Your task to perform on an android device: open app "Booking.com: Hotels and more" Image 0: 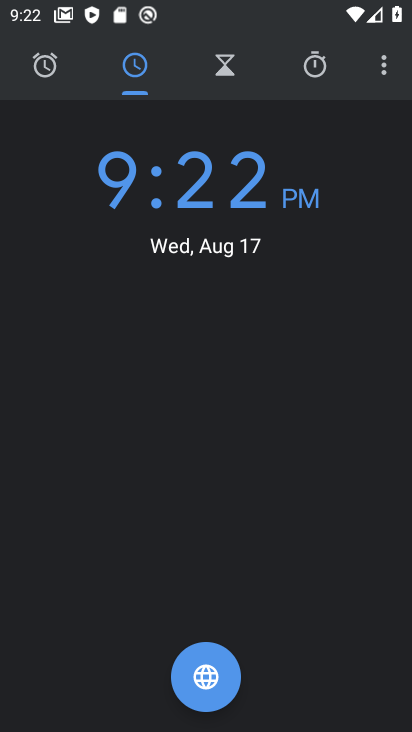
Step 0: drag from (207, 597) to (208, 134)
Your task to perform on an android device: open app "Booking.com: Hotels and more" Image 1: 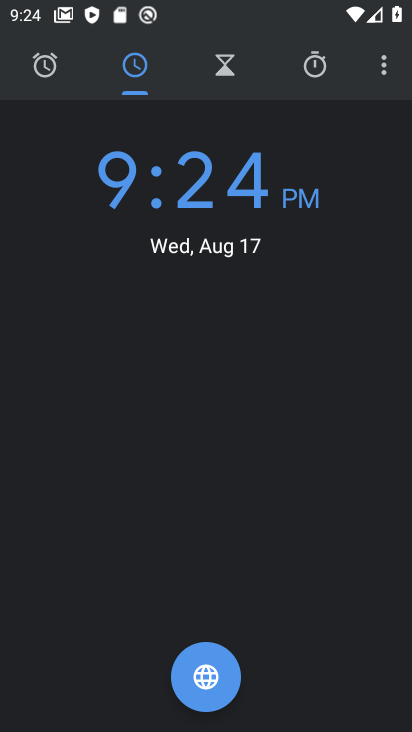
Step 1: press home button
Your task to perform on an android device: open app "Booking.com: Hotels and more" Image 2: 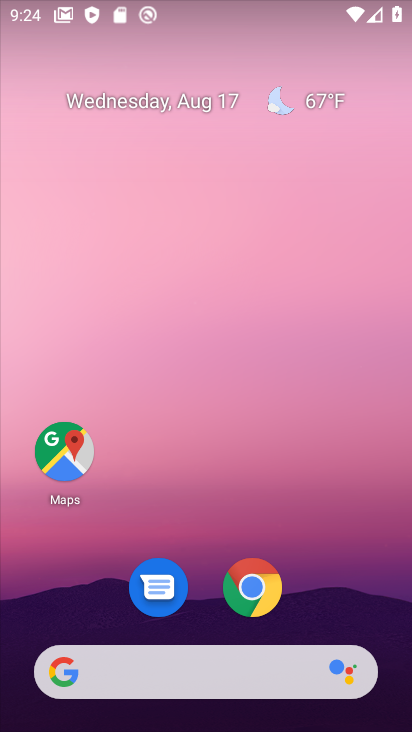
Step 2: drag from (205, 613) to (244, 2)
Your task to perform on an android device: open app "Booking.com: Hotels and more" Image 3: 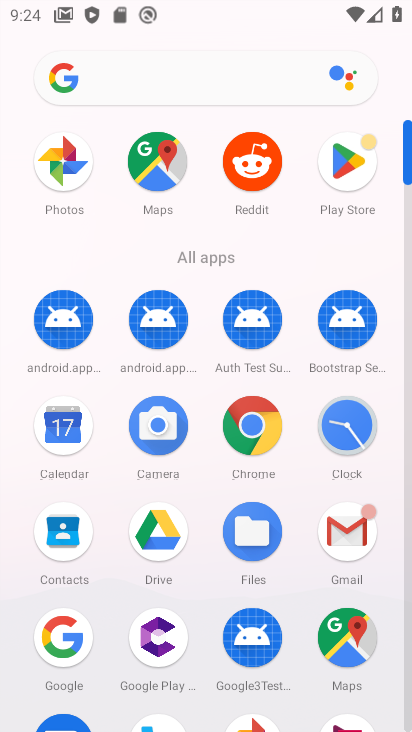
Step 3: click (213, 603)
Your task to perform on an android device: open app "Booking.com: Hotels and more" Image 4: 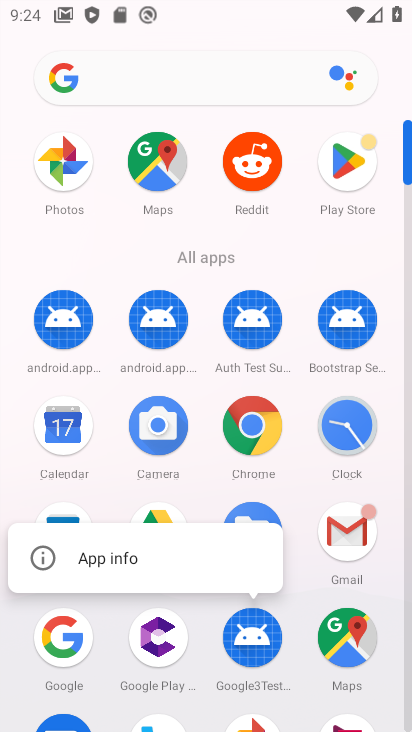
Step 4: click (339, 162)
Your task to perform on an android device: open app "Booking.com: Hotels and more" Image 5: 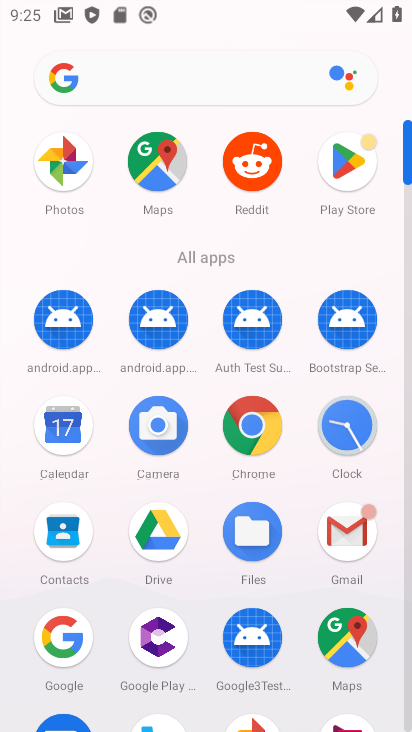
Step 5: click (339, 162)
Your task to perform on an android device: open app "Booking.com: Hotels and more" Image 6: 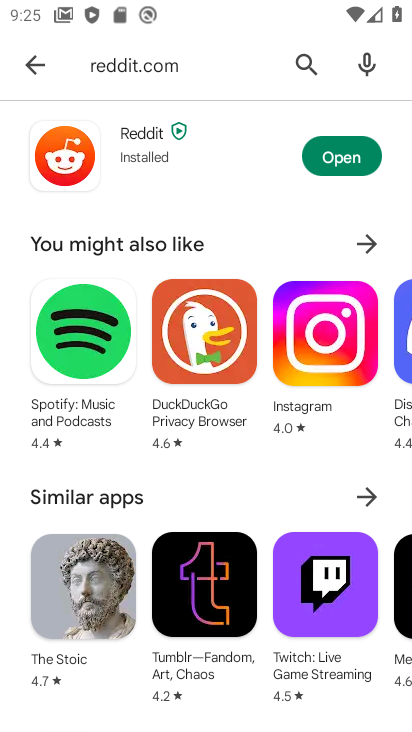
Step 6: click (35, 70)
Your task to perform on an android device: open app "Booking.com: Hotels and more" Image 7: 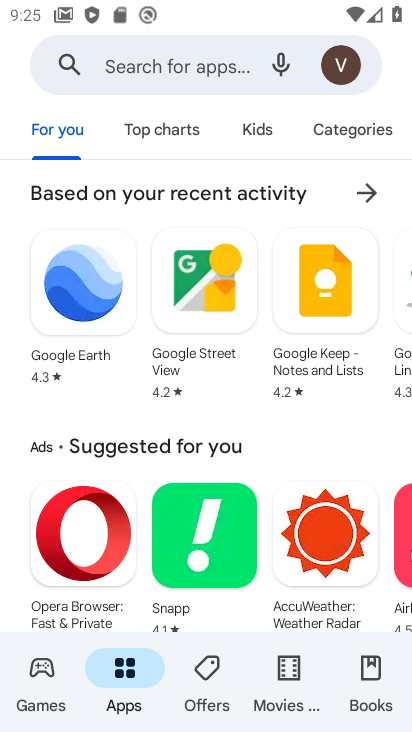
Step 7: click (162, 64)
Your task to perform on an android device: open app "Booking.com: Hotels and more" Image 8: 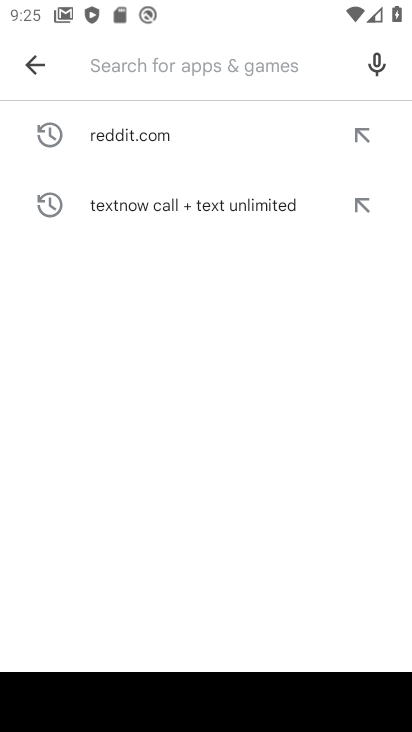
Step 8: type "Booking.com: Hotels and more"
Your task to perform on an android device: open app "Booking.com: Hotels and more" Image 9: 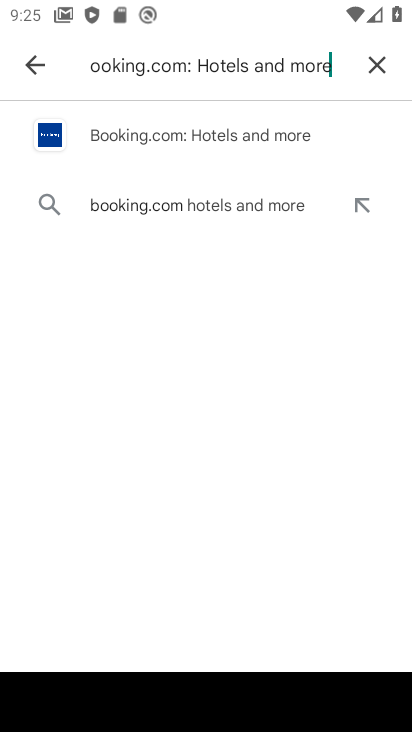
Step 9: click (186, 138)
Your task to perform on an android device: open app "Booking.com: Hotels and more" Image 10: 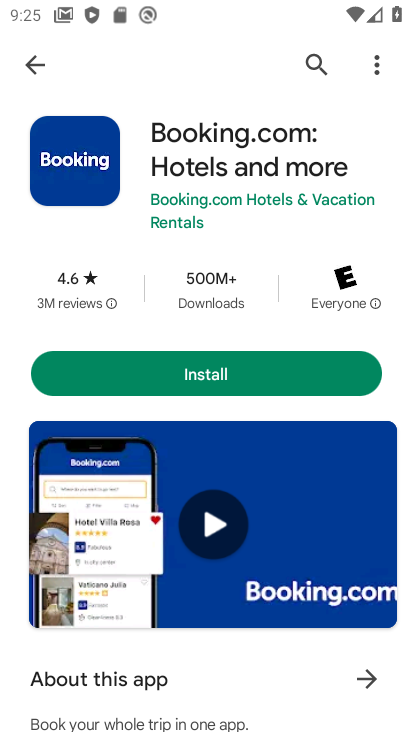
Step 10: click (218, 380)
Your task to perform on an android device: open app "Booking.com: Hotels and more" Image 11: 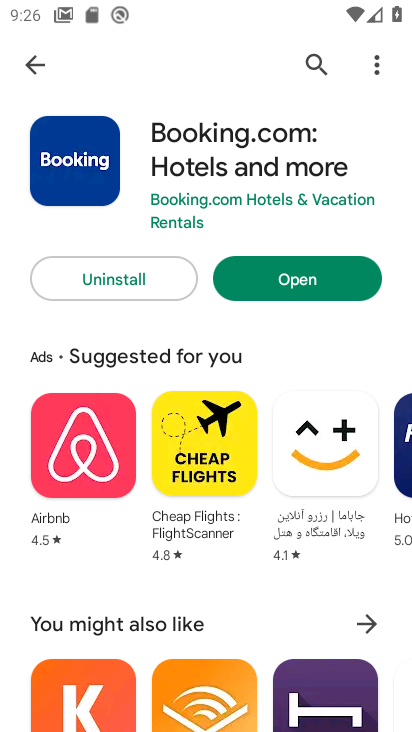
Step 11: click (295, 282)
Your task to perform on an android device: open app "Booking.com: Hotels and more" Image 12: 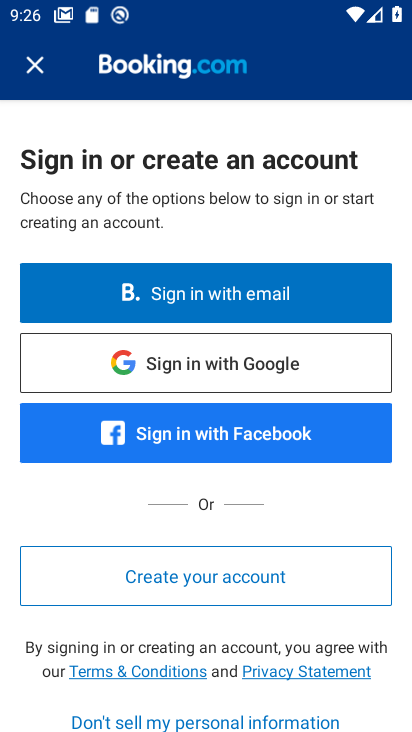
Step 12: task complete